Your task to perform on an android device: all mails in gmail Image 0: 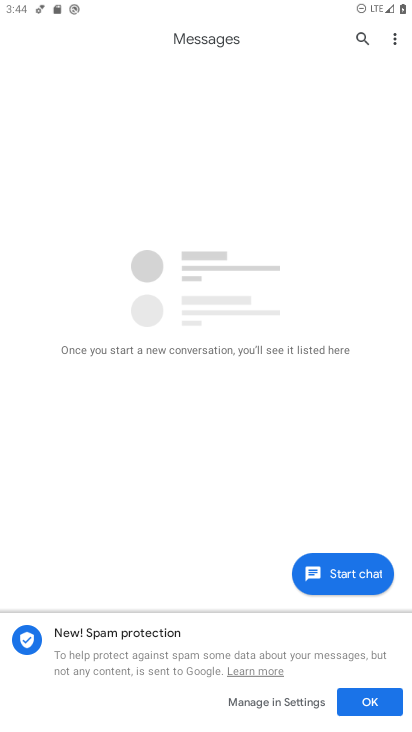
Step 0: press home button
Your task to perform on an android device: all mails in gmail Image 1: 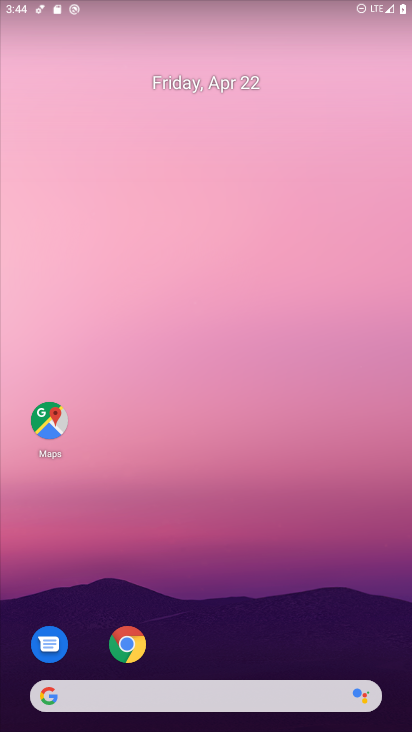
Step 1: drag from (264, 504) to (271, 165)
Your task to perform on an android device: all mails in gmail Image 2: 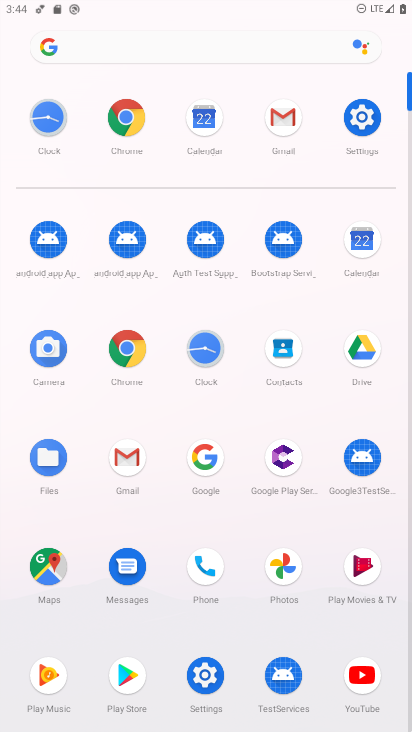
Step 2: click (295, 121)
Your task to perform on an android device: all mails in gmail Image 3: 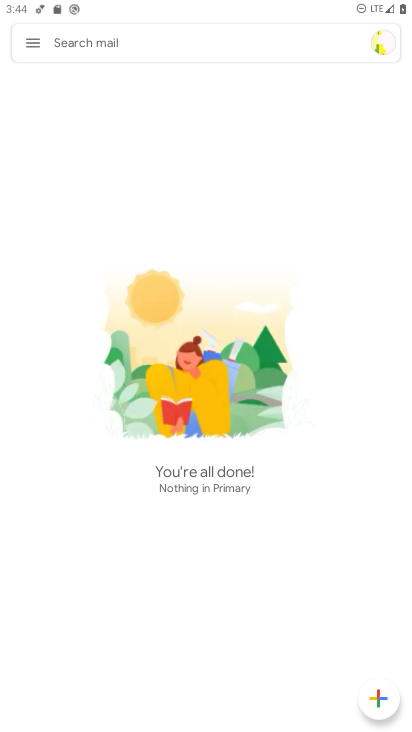
Step 3: click (33, 45)
Your task to perform on an android device: all mails in gmail Image 4: 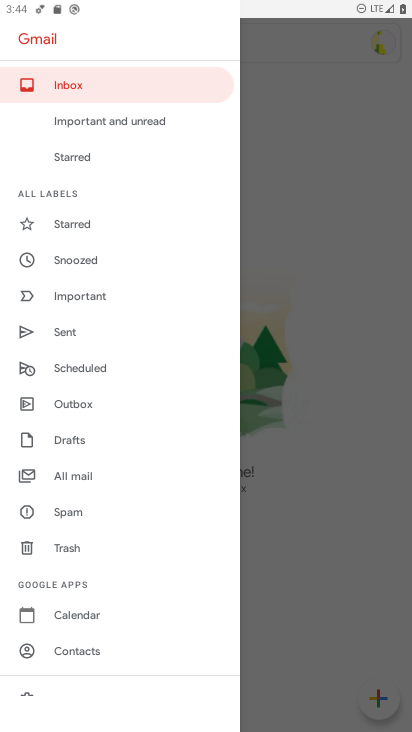
Step 4: click (80, 469)
Your task to perform on an android device: all mails in gmail Image 5: 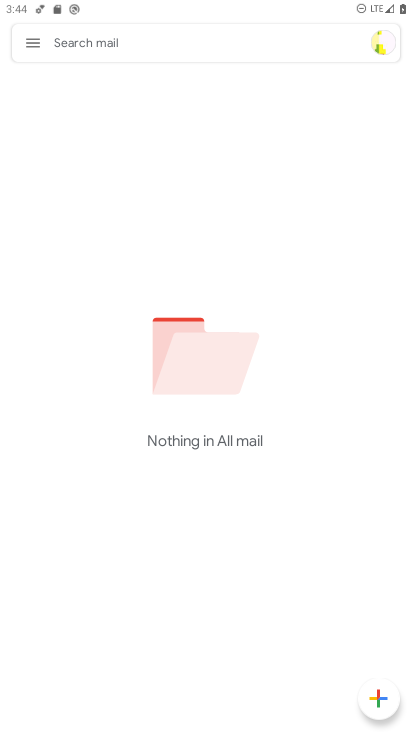
Step 5: task complete